Your task to perform on an android device: turn on airplane mode Image 0: 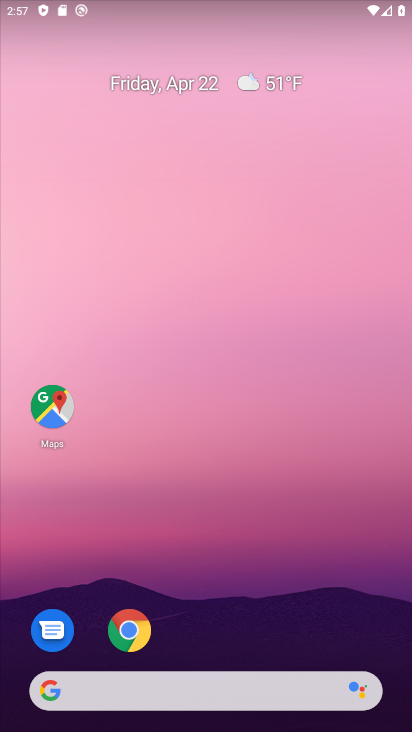
Step 0: drag from (303, 547) to (263, 23)
Your task to perform on an android device: turn on airplane mode Image 1: 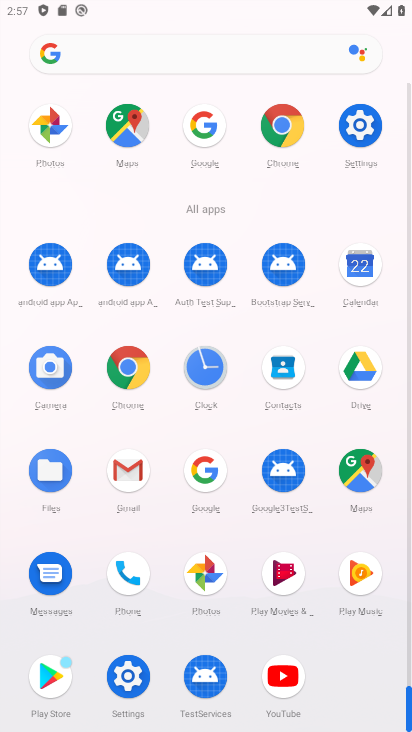
Step 1: drag from (12, 475) to (12, 185)
Your task to perform on an android device: turn on airplane mode Image 2: 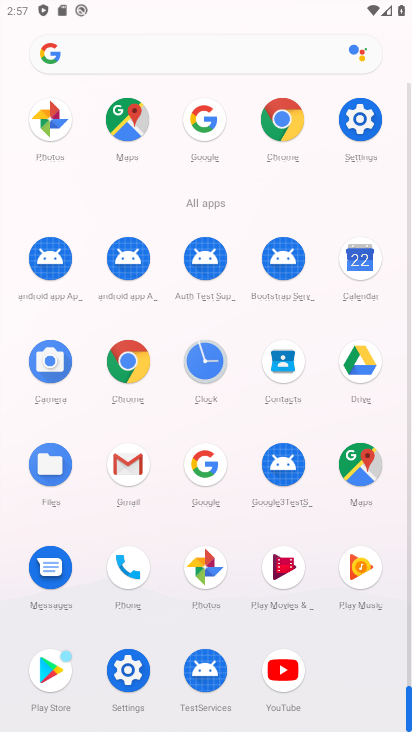
Step 2: click (357, 117)
Your task to perform on an android device: turn on airplane mode Image 3: 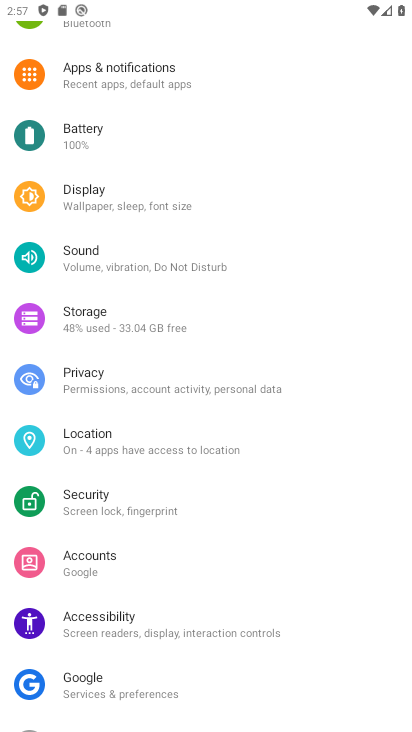
Step 3: drag from (284, 227) to (278, 466)
Your task to perform on an android device: turn on airplane mode Image 4: 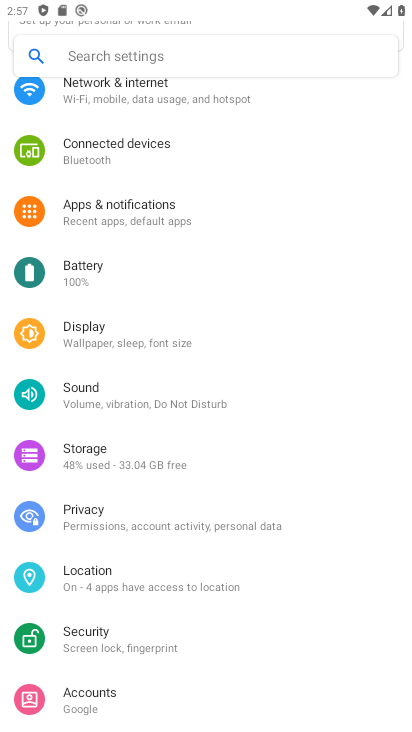
Step 4: drag from (276, 124) to (272, 446)
Your task to perform on an android device: turn on airplane mode Image 5: 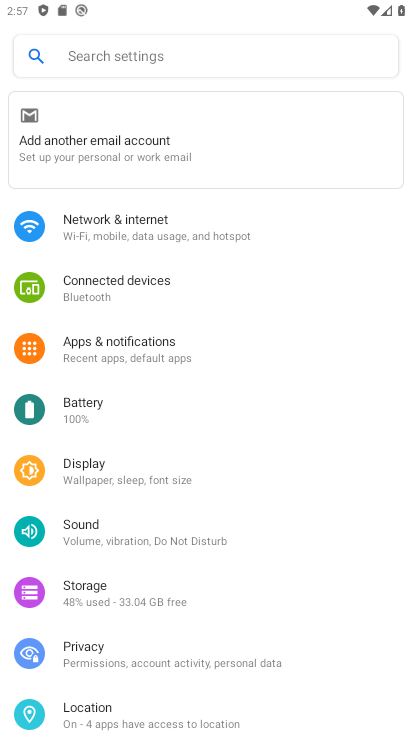
Step 5: click (184, 229)
Your task to perform on an android device: turn on airplane mode Image 6: 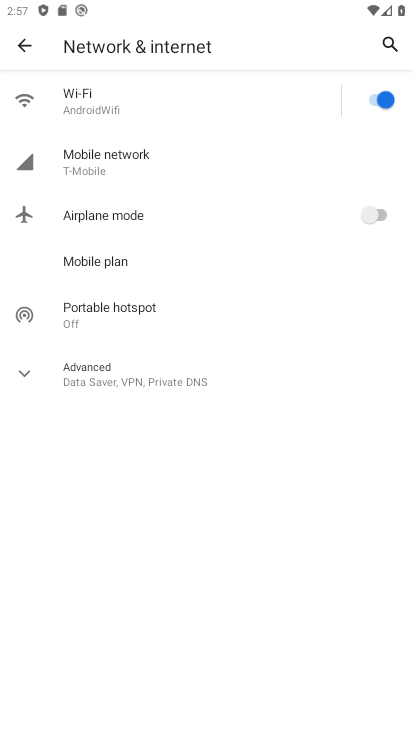
Step 6: click (372, 213)
Your task to perform on an android device: turn on airplane mode Image 7: 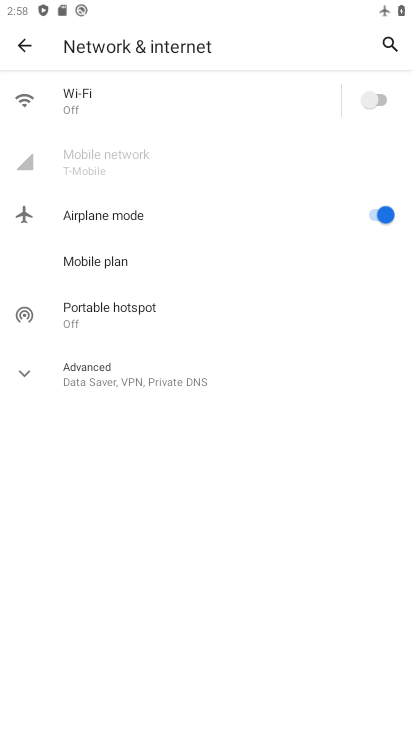
Step 7: task complete